Your task to perform on an android device: Go to Android settings Image 0: 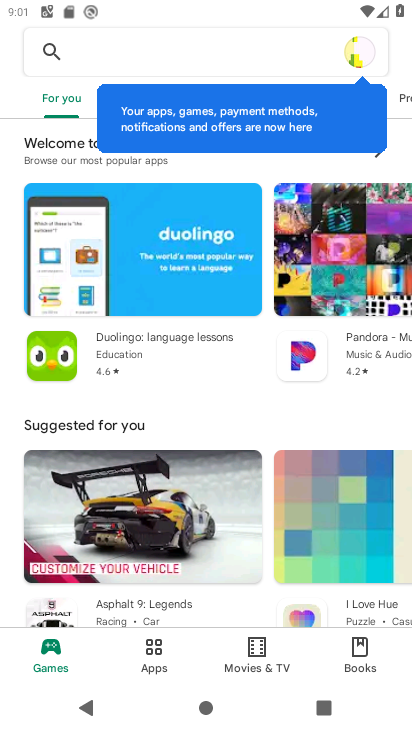
Step 0: press home button
Your task to perform on an android device: Go to Android settings Image 1: 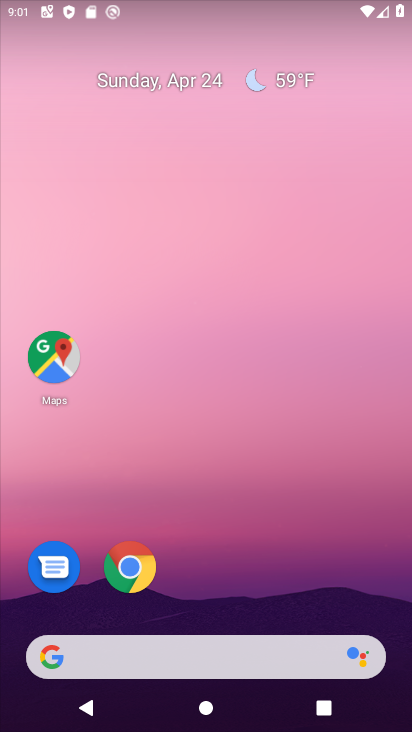
Step 1: drag from (394, 358) to (382, 80)
Your task to perform on an android device: Go to Android settings Image 2: 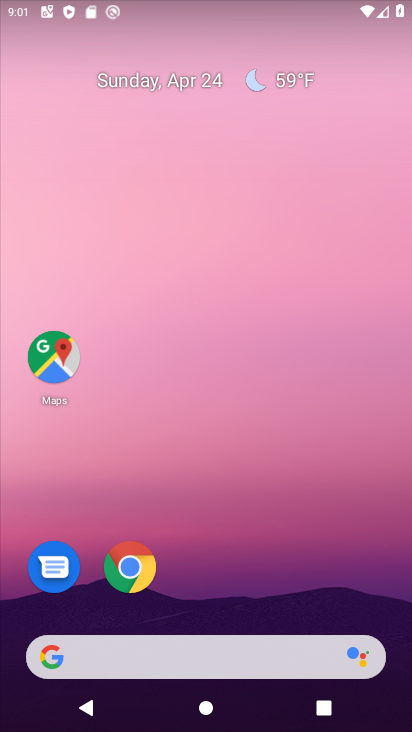
Step 2: click (341, 218)
Your task to perform on an android device: Go to Android settings Image 3: 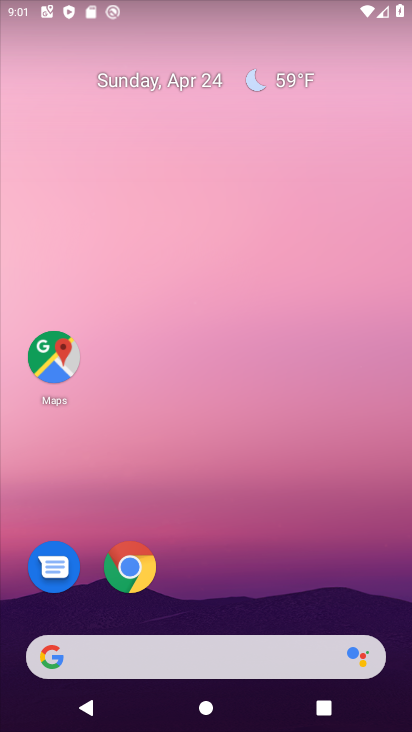
Step 3: drag from (393, 472) to (376, 84)
Your task to perform on an android device: Go to Android settings Image 4: 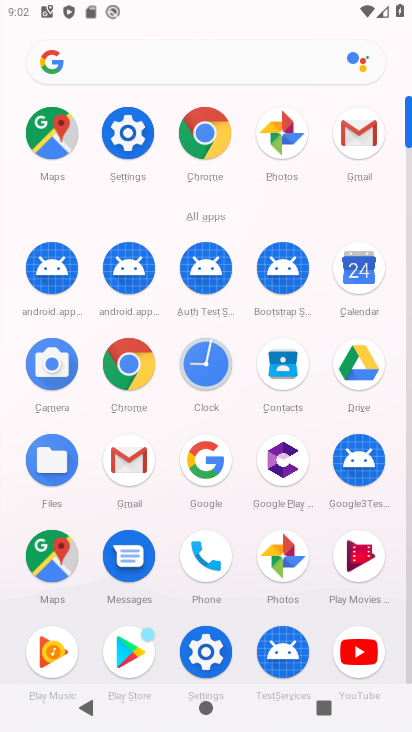
Step 4: click (217, 644)
Your task to perform on an android device: Go to Android settings Image 5: 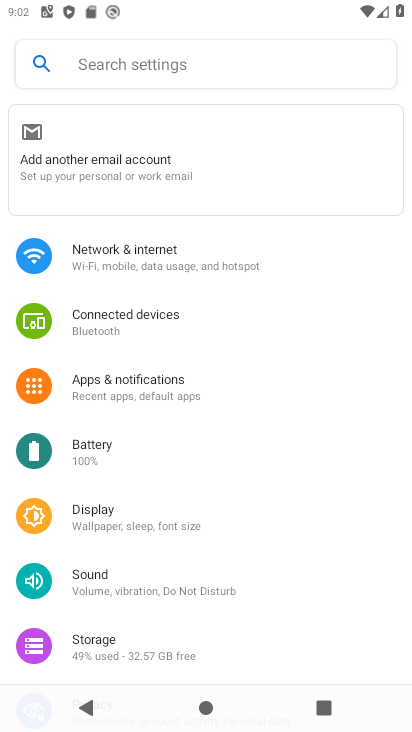
Step 5: task complete